Your task to perform on an android device: Turn on the flashlight Image 0: 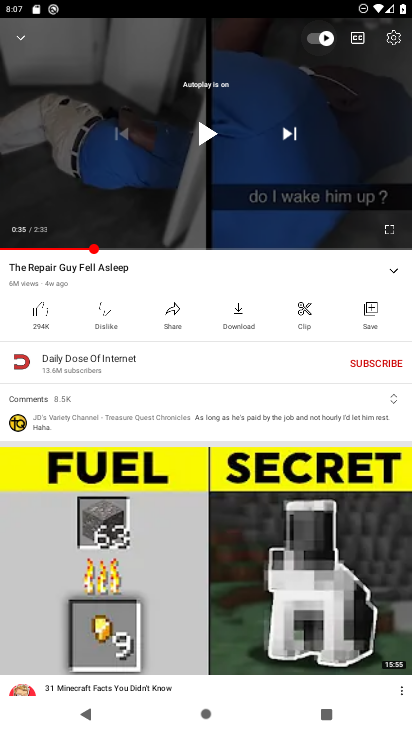
Step 0: press home button
Your task to perform on an android device: Turn on the flashlight Image 1: 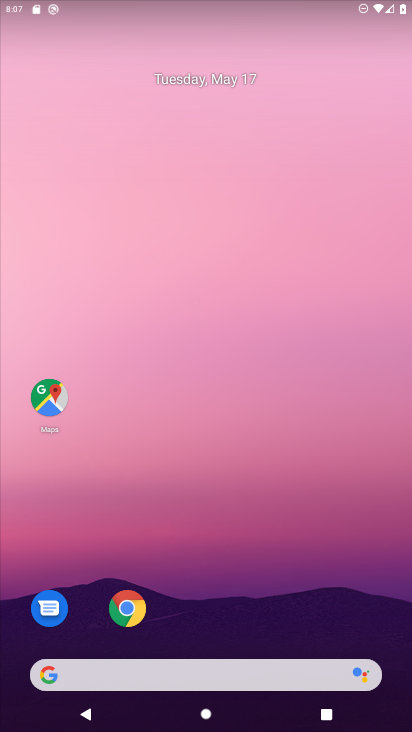
Step 1: drag from (187, 619) to (228, 199)
Your task to perform on an android device: Turn on the flashlight Image 2: 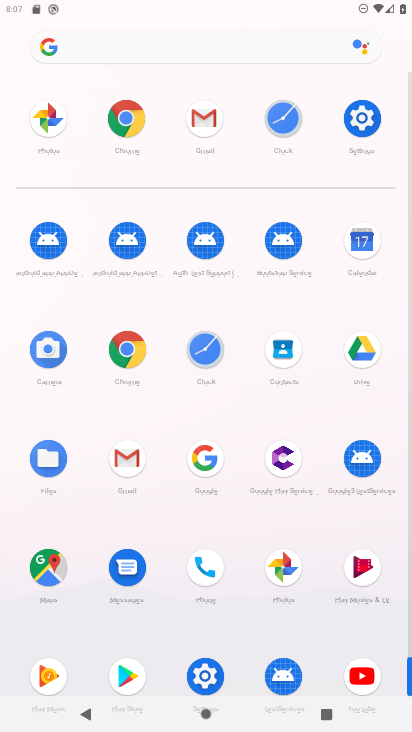
Step 2: click (366, 125)
Your task to perform on an android device: Turn on the flashlight Image 3: 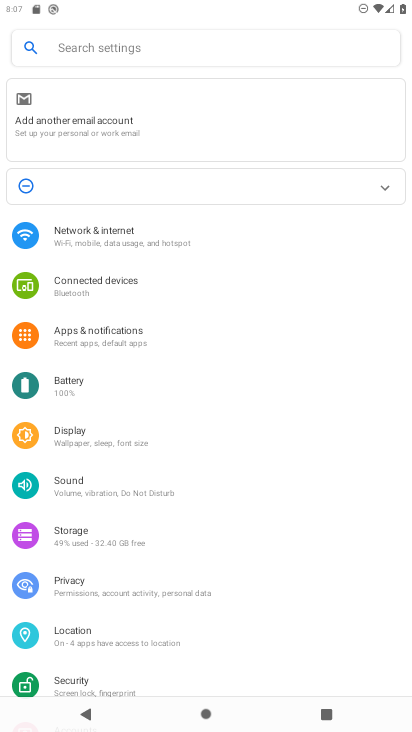
Step 3: click (210, 56)
Your task to perform on an android device: Turn on the flashlight Image 4: 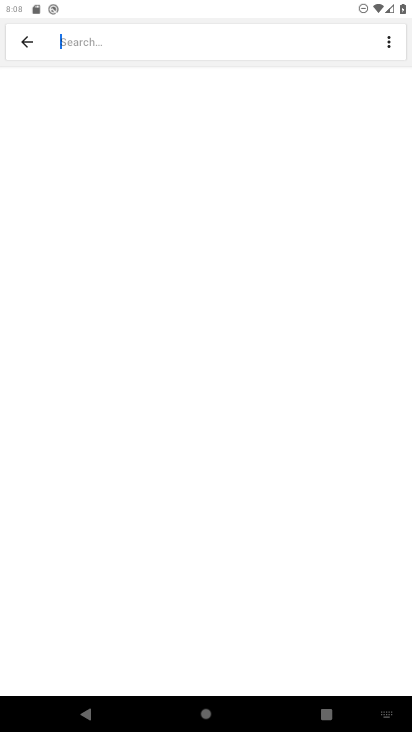
Step 4: type "flashlight"
Your task to perform on an android device: Turn on the flashlight Image 5: 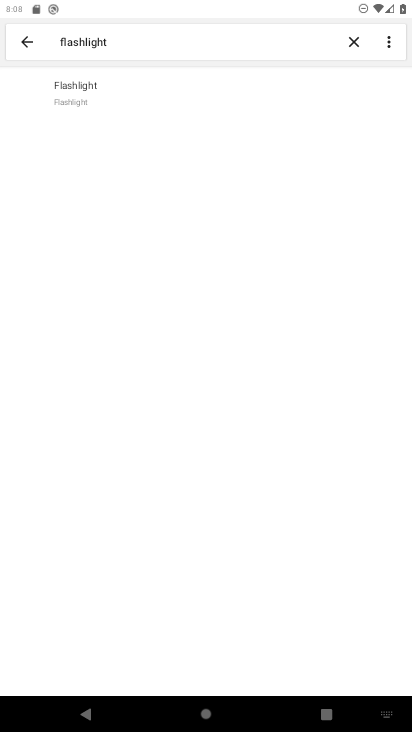
Step 5: click (60, 86)
Your task to perform on an android device: Turn on the flashlight Image 6: 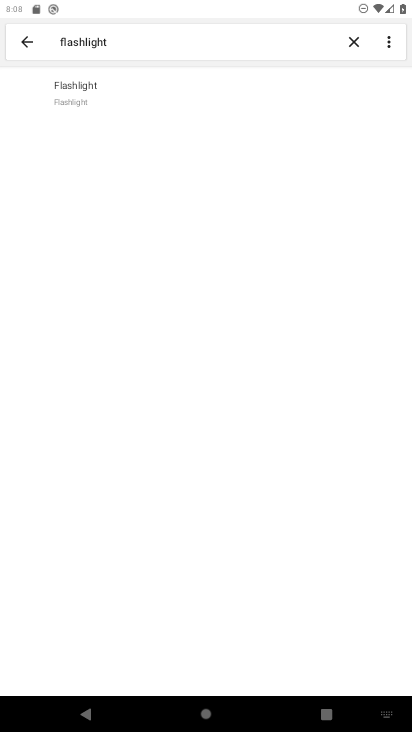
Step 6: click (71, 96)
Your task to perform on an android device: Turn on the flashlight Image 7: 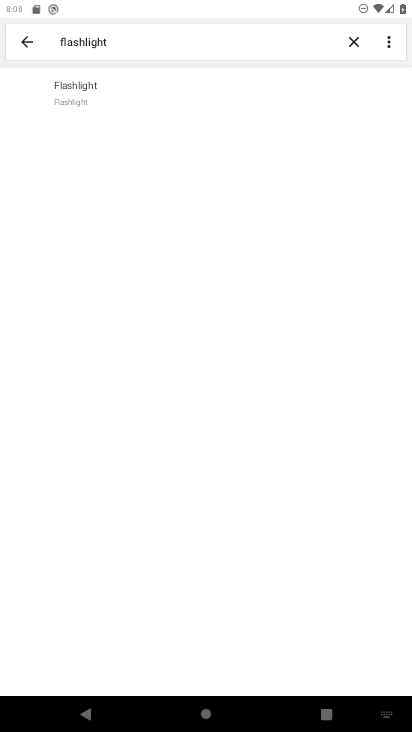
Step 7: task complete